Your task to perform on an android device: delete location history Image 0: 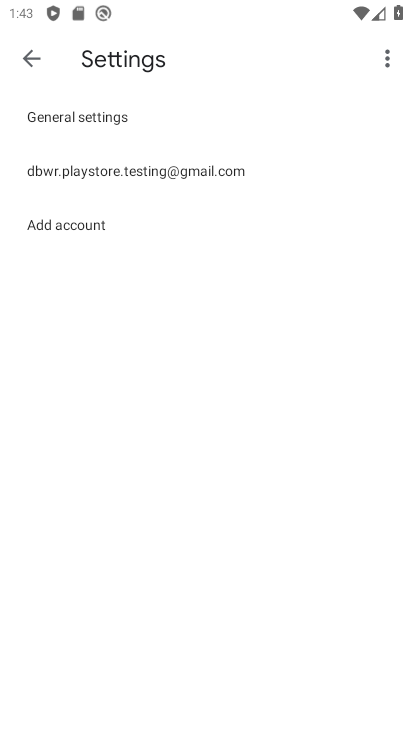
Step 0: press home button
Your task to perform on an android device: delete location history Image 1: 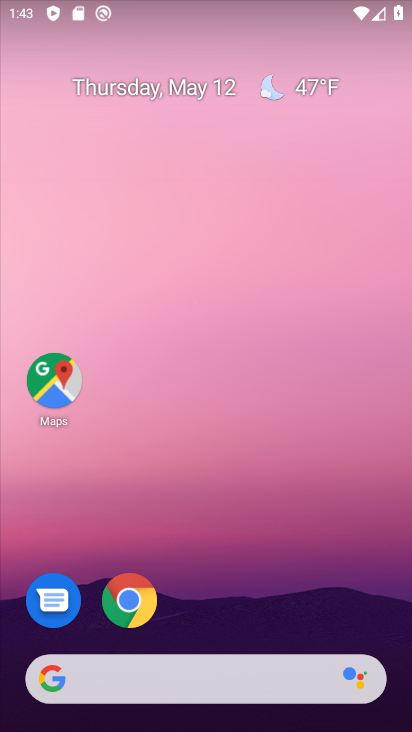
Step 1: drag from (196, 614) to (229, 37)
Your task to perform on an android device: delete location history Image 2: 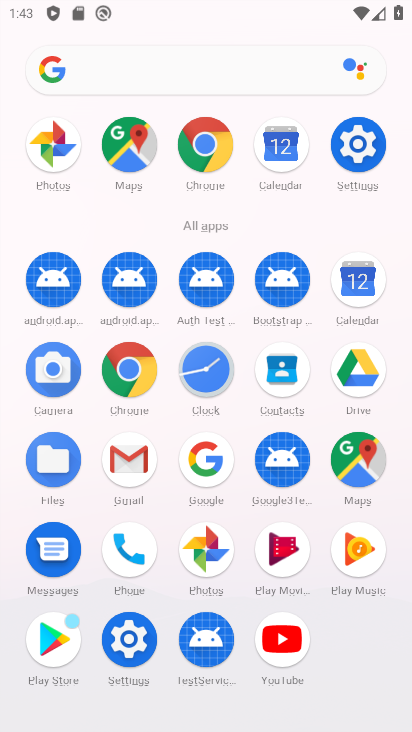
Step 2: click (375, 135)
Your task to perform on an android device: delete location history Image 3: 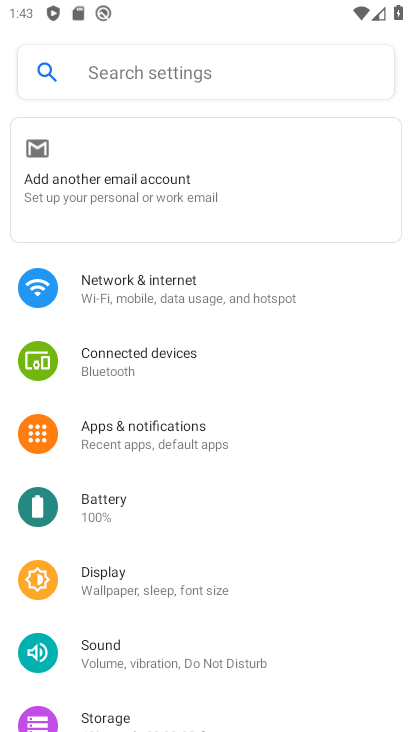
Step 3: drag from (191, 648) to (214, 231)
Your task to perform on an android device: delete location history Image 4: 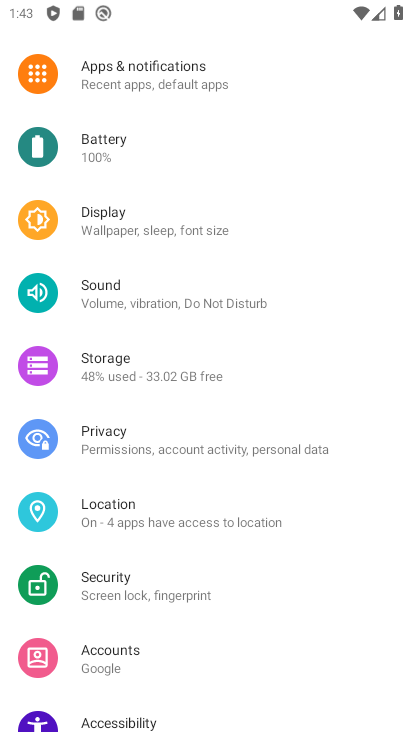
Step 4: click (192, 523)
Your task to perform on an android device: delete location history Image 5: 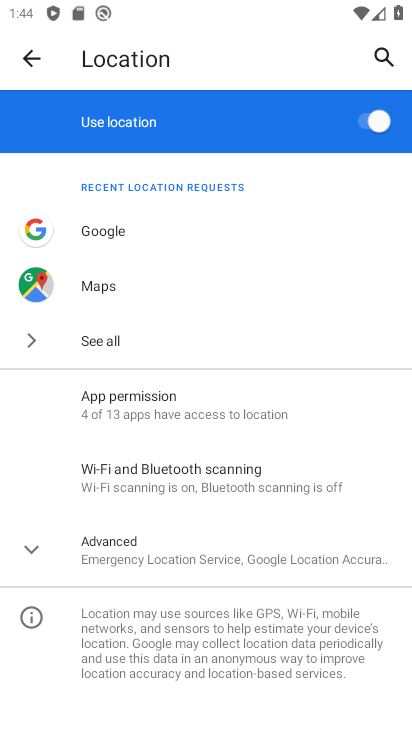
Step 5: click (182, 556)
Your task to perform on an android device: delete location history Image 6: 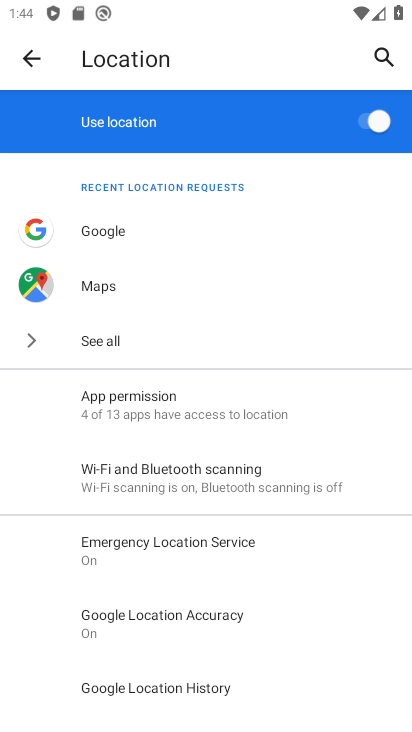
Step 6: click (196, 685)
Your task to perform on an android device: delete location history Image 7: 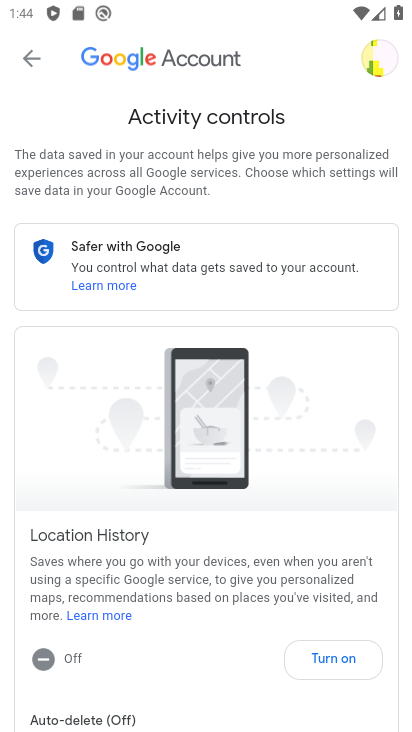
Step 7: drag from (230, 624) to (243, 298)
Your task to perform on an android device: delete location history Image 8: 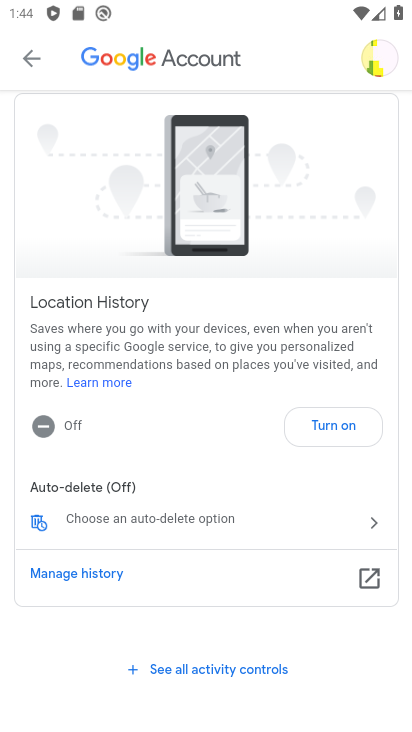
Step 8: click (103, 568)
Your task to perform on an android device: delete location history Image 9: 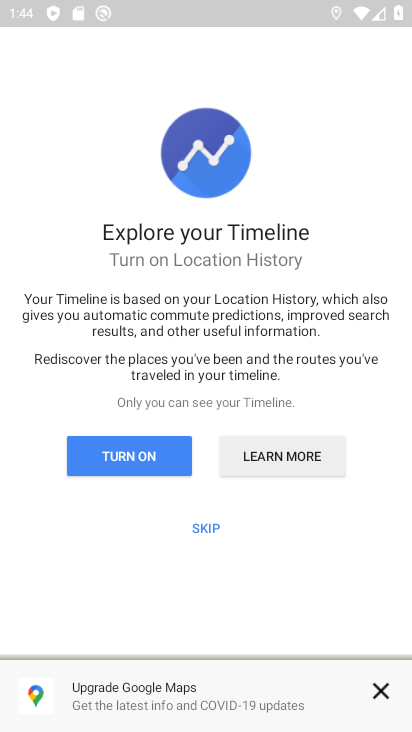
Step 9: click (211, 526)
Your task to perform on an android device: delete location history Image 10: 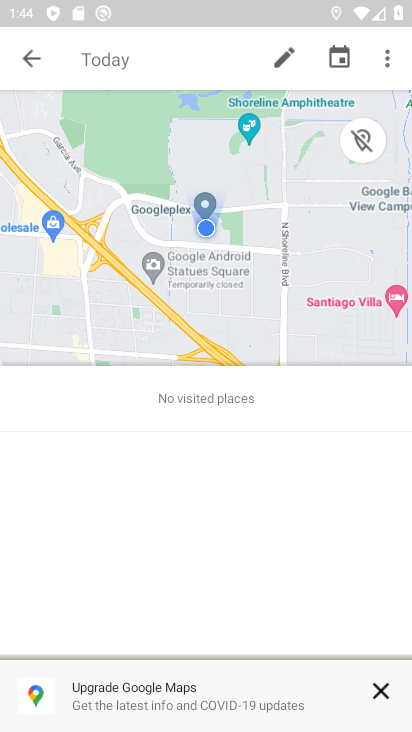
Step 10: task complete